Your task to perform on an android device: add a label to a message in the gmail app Image 0: 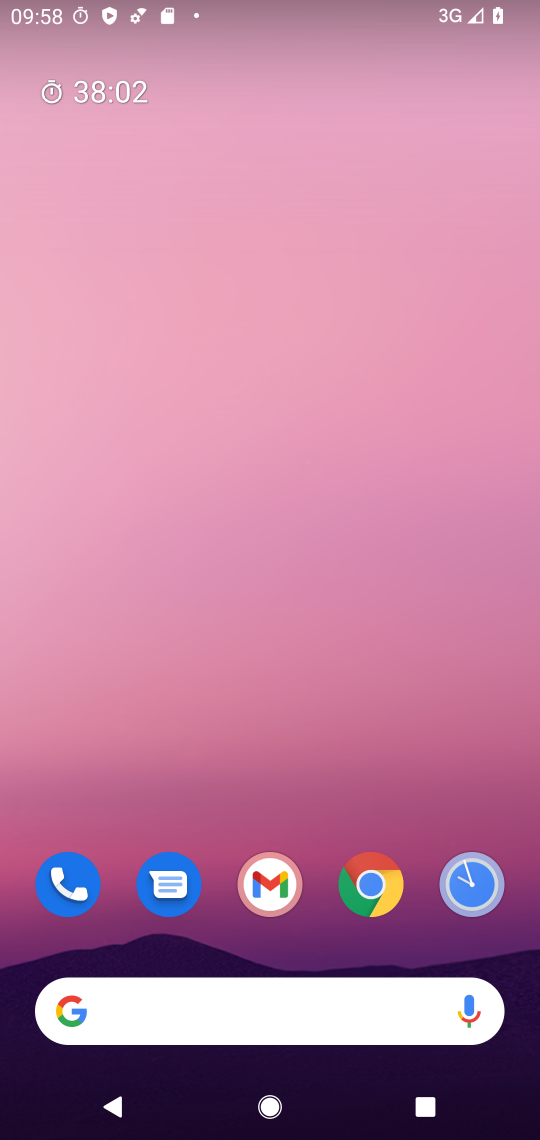
Step 0: click (256, 852)
Your task to perform on an android device: add a label to a message in the gmail app Image 1: 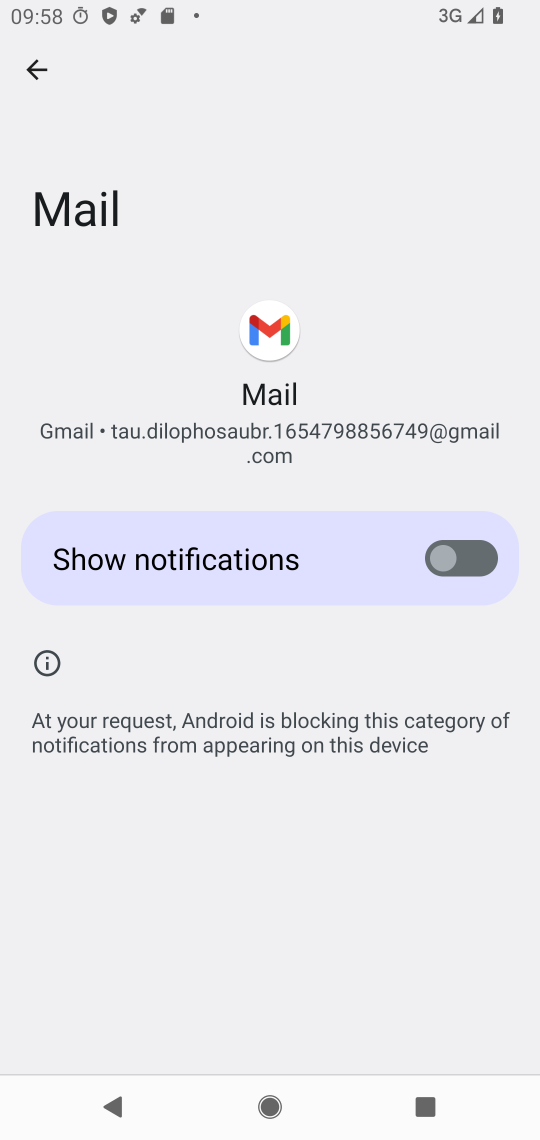
Step 1: click (36, 79)
Your task to perform on an android device: add a label to a message in the gmail app Image 2: 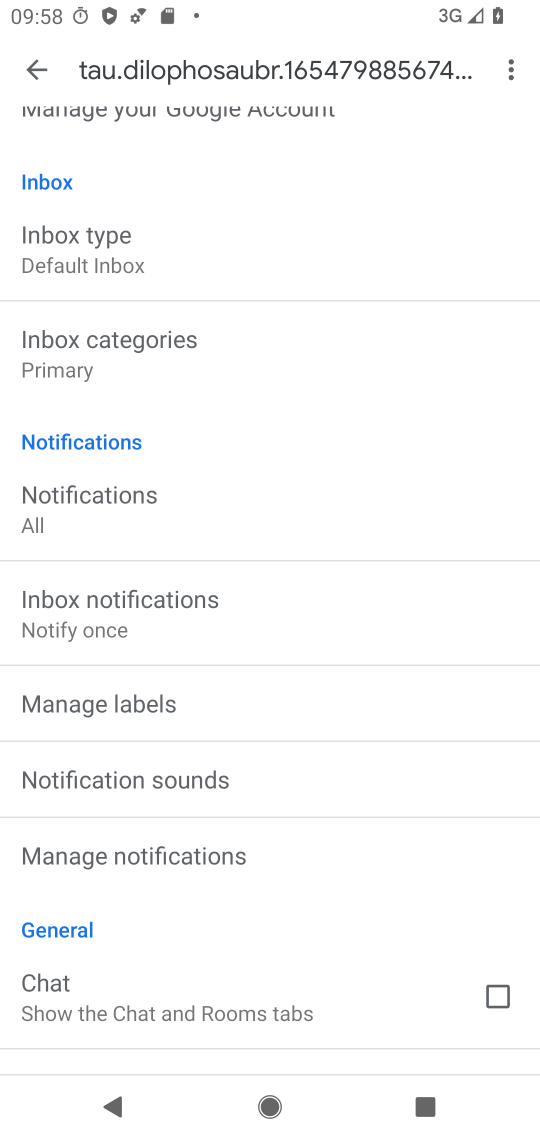
Step 2: click (36, 79)
Your task to perform on an android device: add a label to a message in the gmail app Image 3: 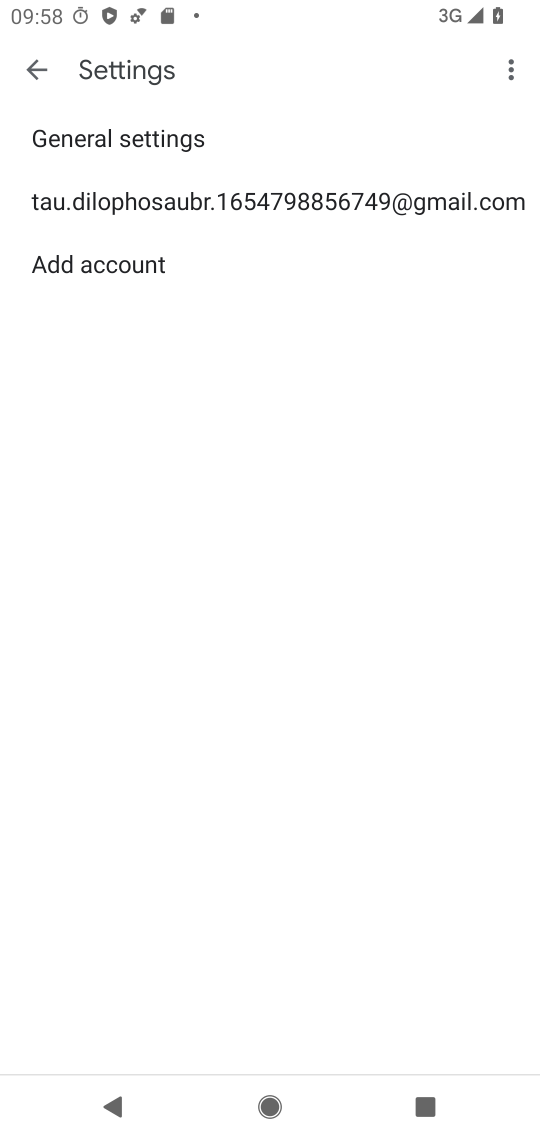
Step 3: click (36, 79)
Your task to perform on an android device: add a label to a message in the gmail app Image 4: 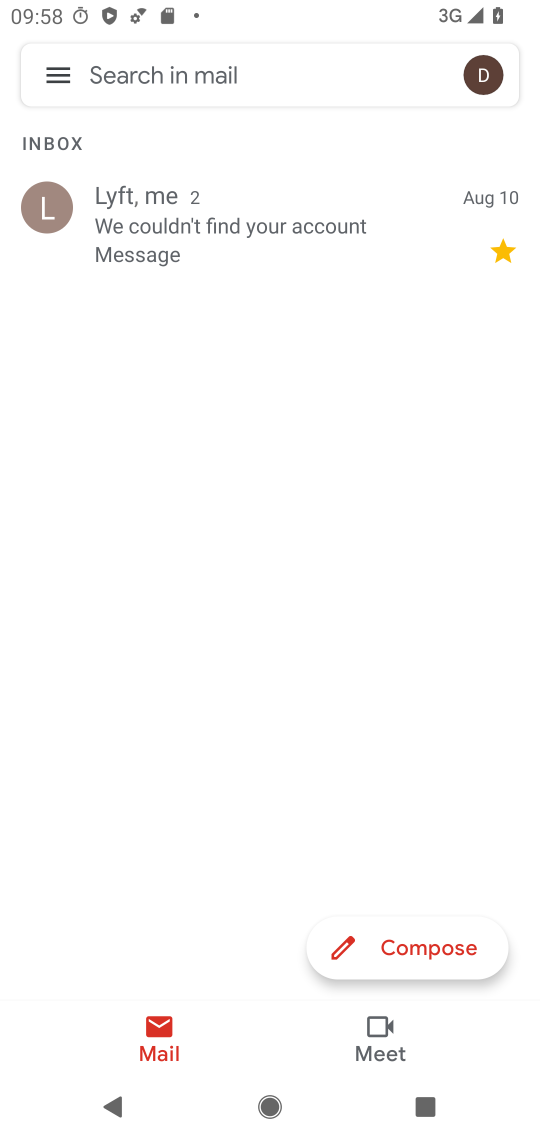
Step 4: click (220, 262)
Your task to perform on an android device: add a label to a message in the gmail app Image 5: 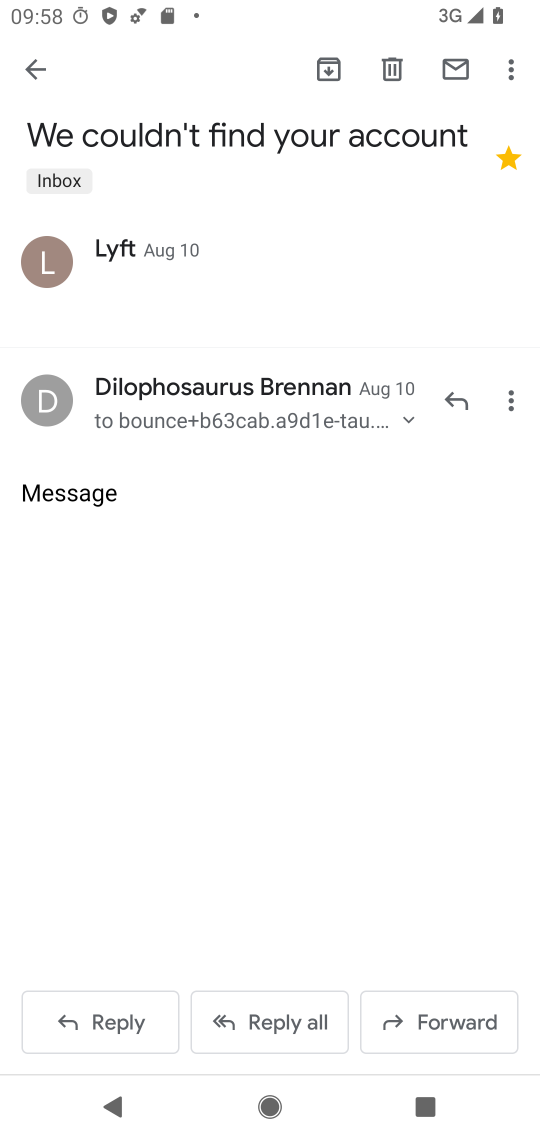
Step 5: click (521, 71)
Your task to perform on an android device: add a label to a message in the gmail app Image 6: 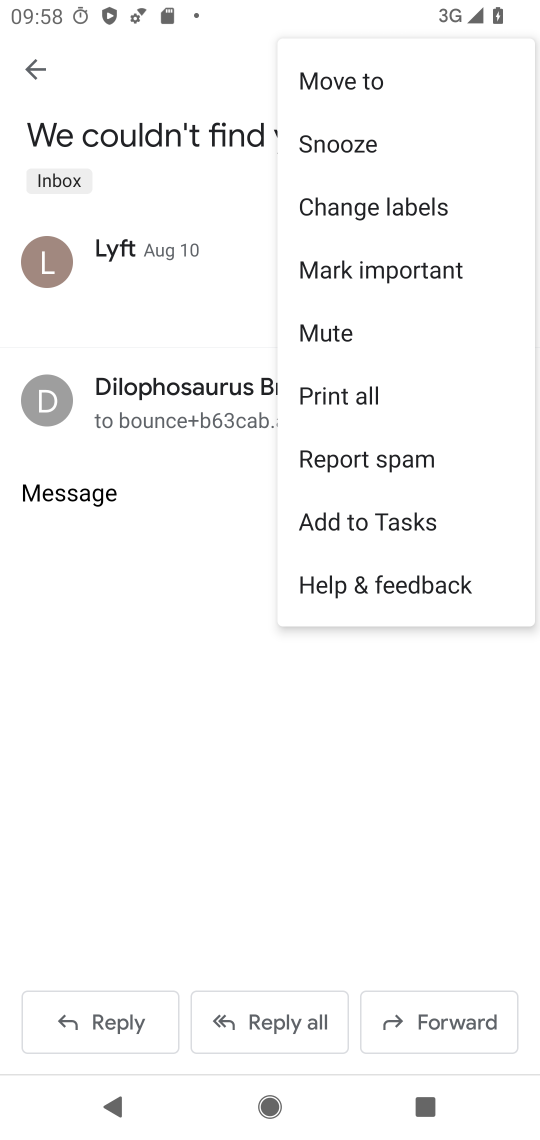
Step 6: click (386, 226)
Your task to perform on an android device: add a label to a message in the gmail app Image 7: 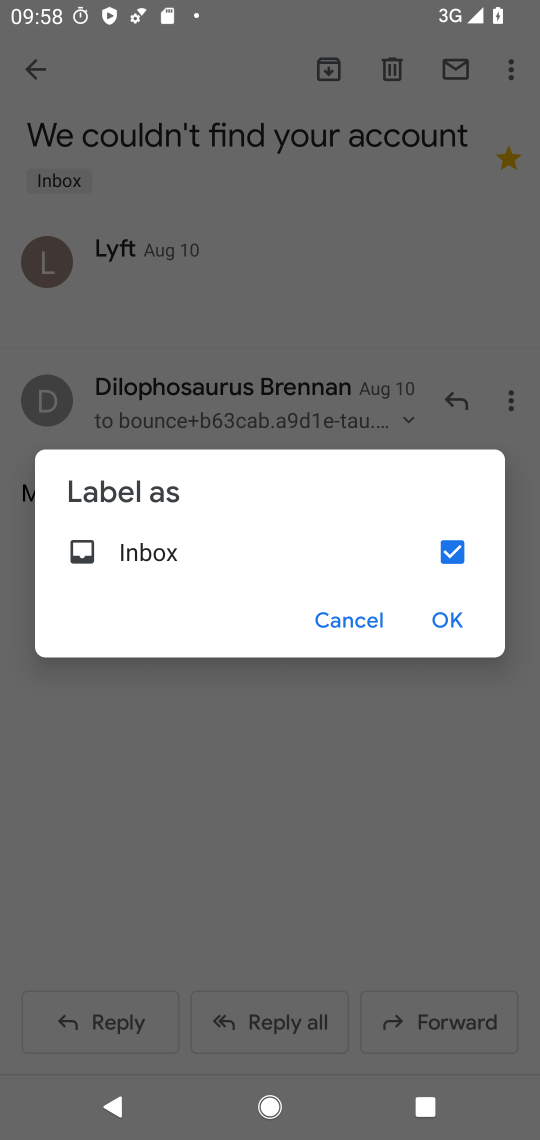
Step 7: click (444, 627)
Your task to perform on an android device: add a label to a message in the gmail app Image 8: 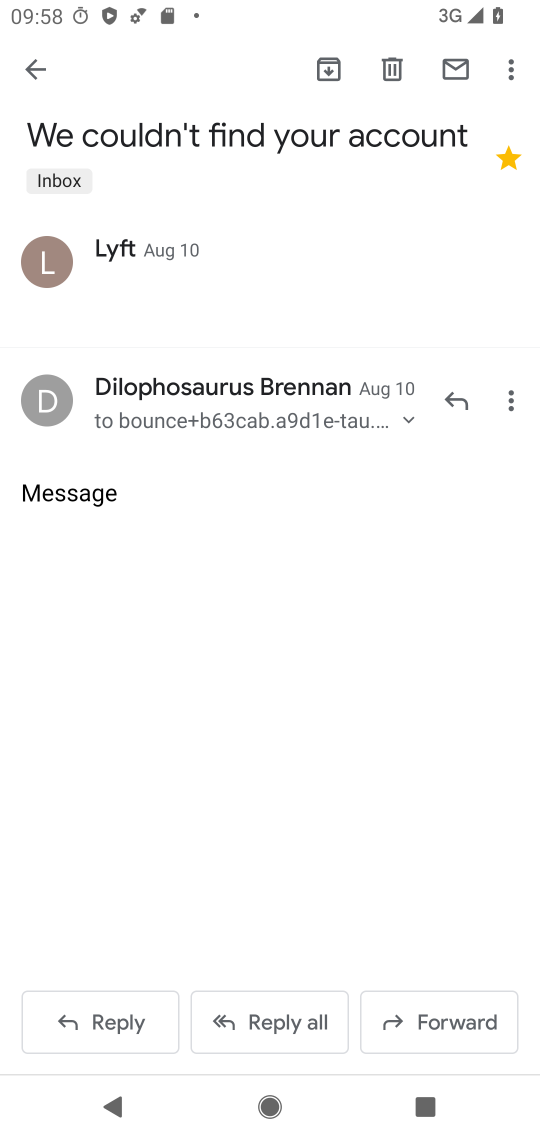
Step 8: task complete